Your task to perform on an android device: find snoozed emails in the gmail app Image 0: 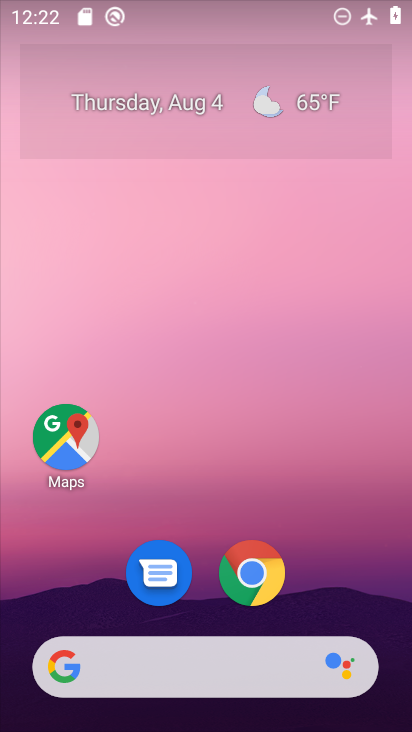
Step 0: drag from (367, 591) to (331, 175)
Your task to perform on an android device: find snoozed emails in the gmail app Image 1: 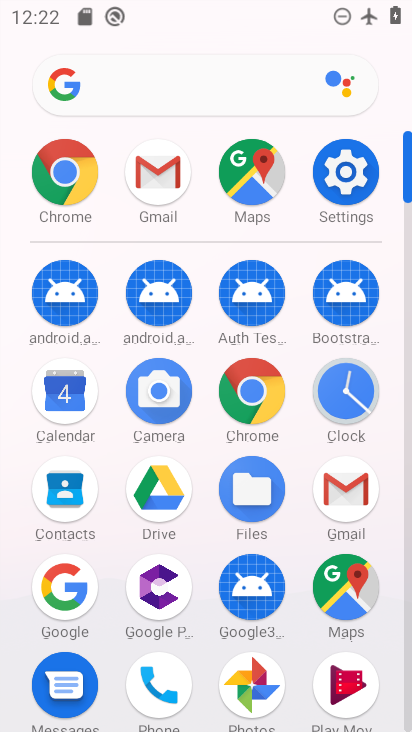
Step 1: click (336, 478)
Your task to perform on an android device: find snoozed emails in the gmail app Image 2: 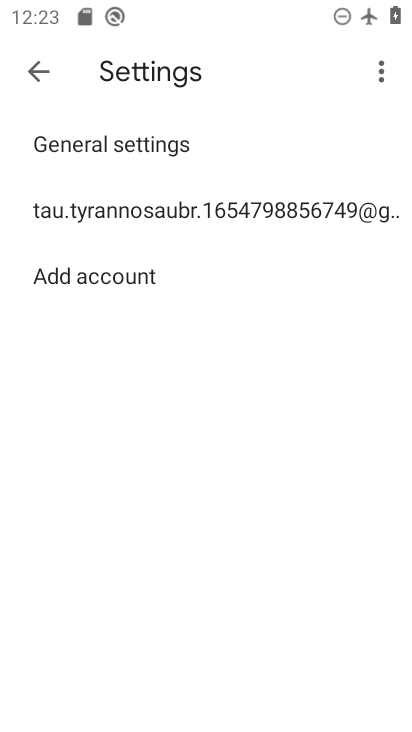
Step 2: click (34, 77)
Your task to perform on an android device: find snoozed emails in the gmail app Image 3: 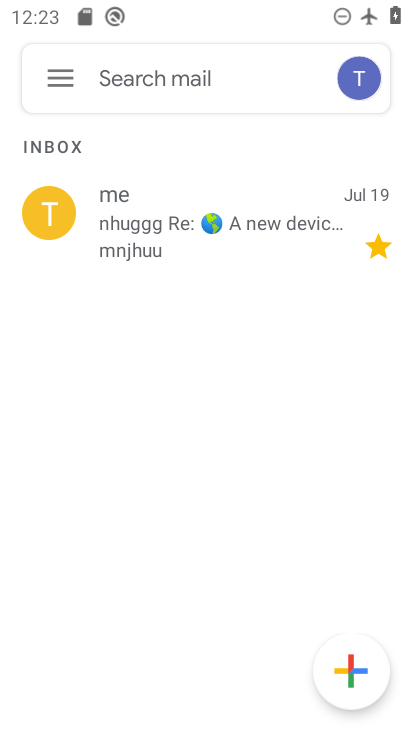
Step 3: click (34, 77)
Your task to perform on an android device: find snoozed emails in the gmail app Image 4: 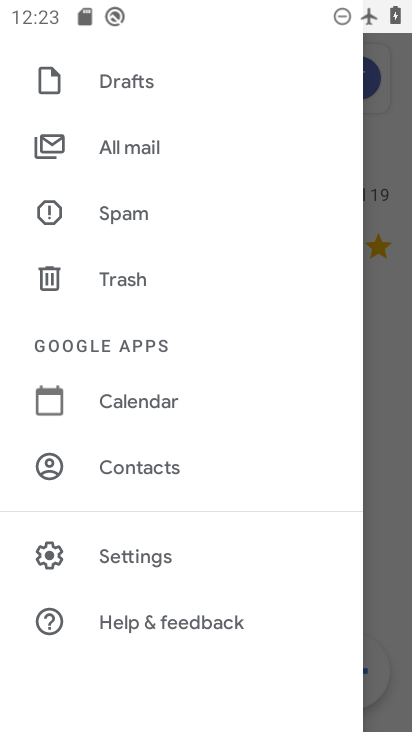
Step 4: drag from (171, 163) to (160, 568)
Your task to perform on an android device: find snoozed emails in the gmail app Image 5: 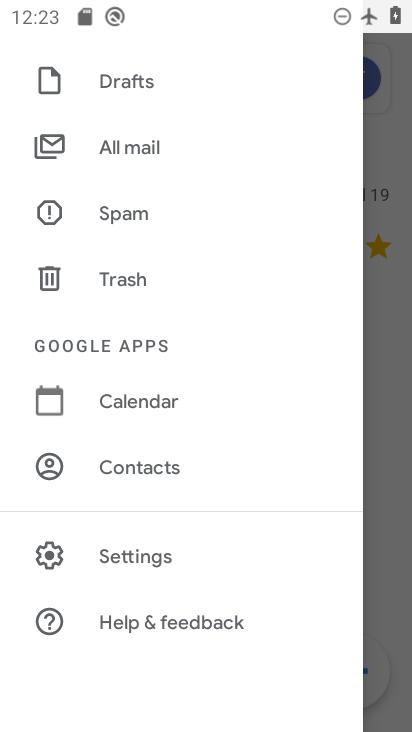
Step 5: drag from (180, 185) to (146, 551)
Your task to perform on an android device: find snoozed emails in the gmail app Image 6: 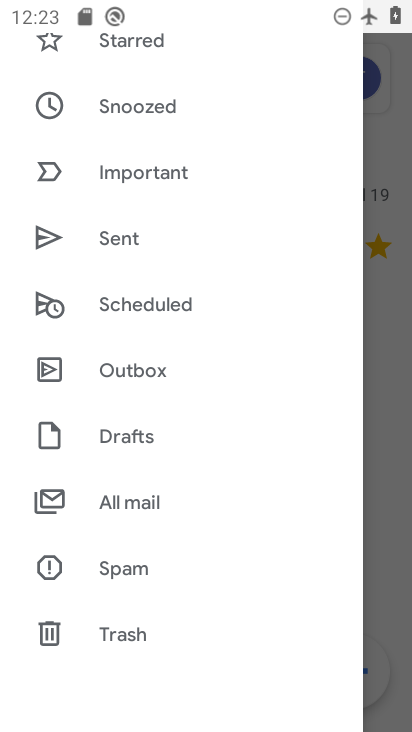
Step 6: drag from (197, 233) to (174, 492)
Your task to perform on an android device: find snoozed emails in the gmail app Image 7: 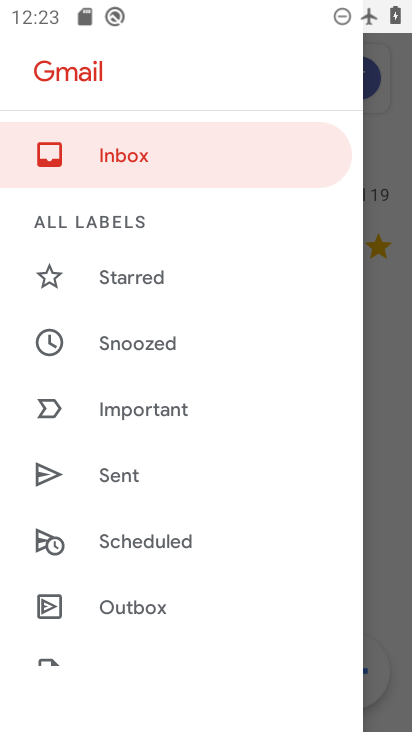
Step 7: click (152, 349)
Your task to perform on an android device: find snoozed emails in the gmail app Image 8: 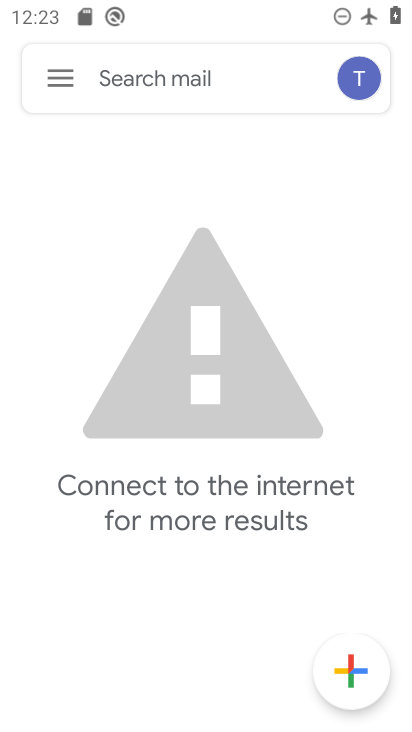
Step 8: task complete